Your task to perform on an android device: Turn on the flashlight Image 0: 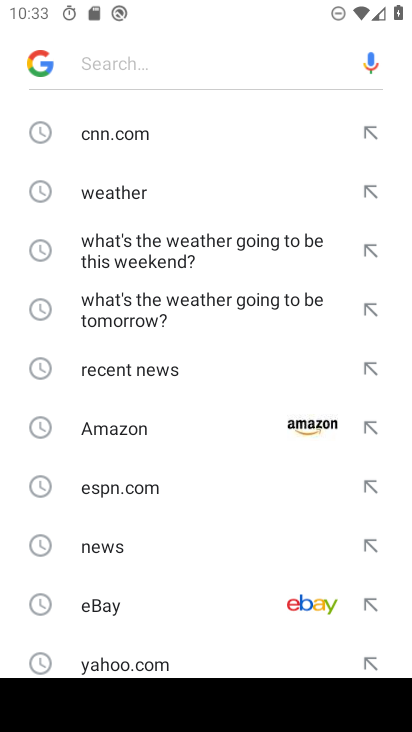
Step 0: press home button
Your task to perform on an android device: Turn on the flashlight Image 1: 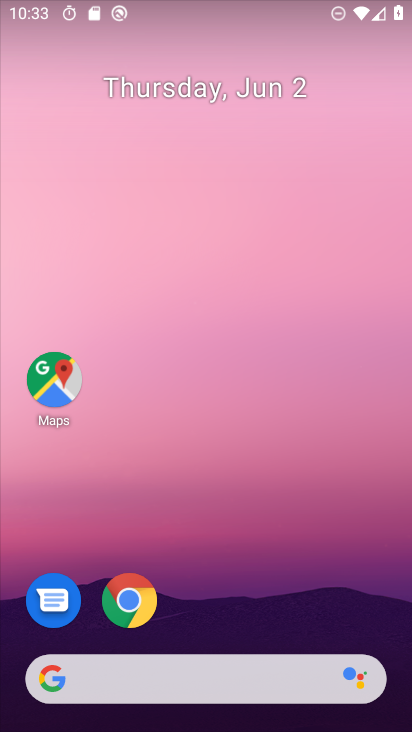
Step 1: drag from (207, 607) to (268, 10)
Your task to perform on an android device: Turn on the flashlight Image 2: 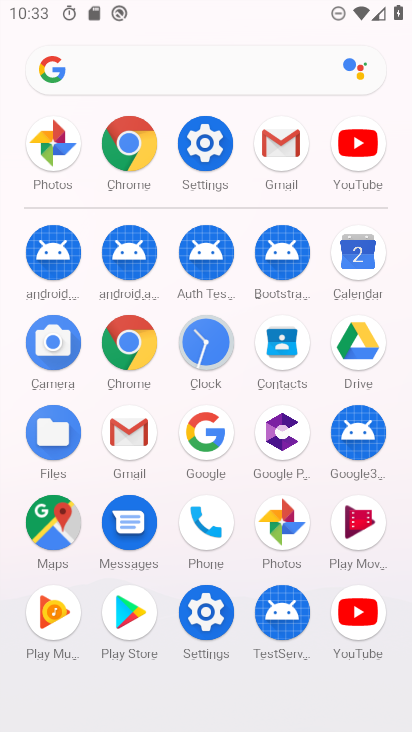
Step 2: click (211, 147)
Your task to perform on an android device: Turn on the flashlight Image 3: 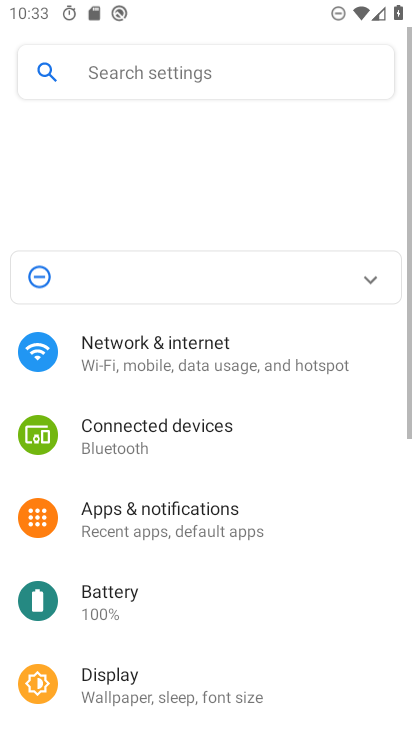
Step 3: click (213, 85)
Your task to perform on an android device: Turn on the flashlight Image 4: 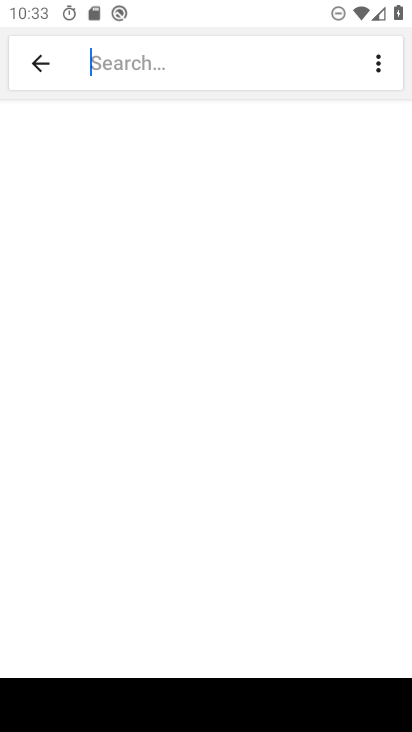
Step 4: type "flash"
Your task to perform on an android device: Turn on the flashlight Image 5: 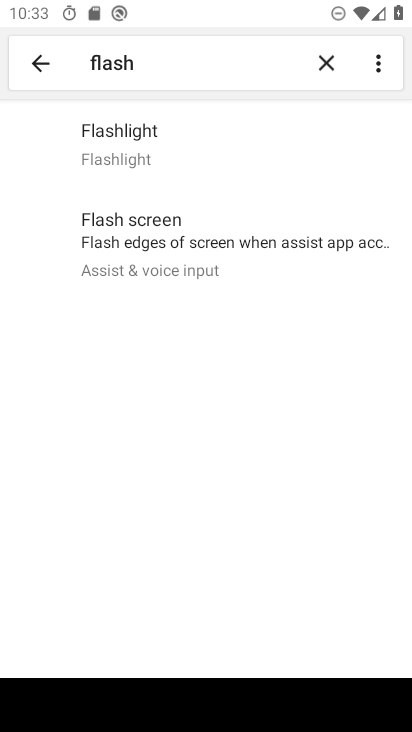
Step 5: task complete